Your task to perform on an android device: Show the shopping cart on costco. Image 0: 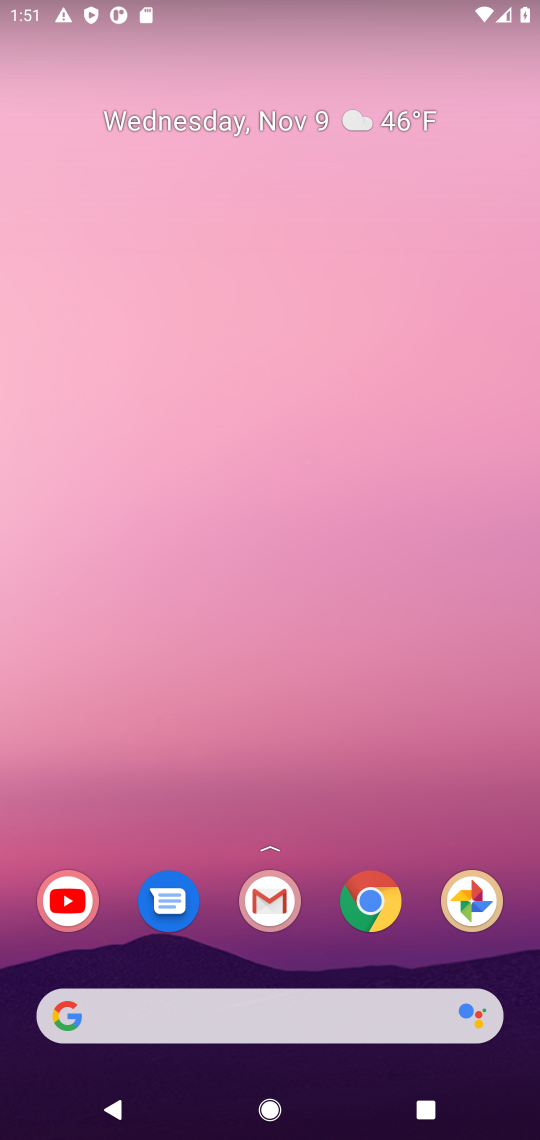
Step 0: click (381, 911)
Your task to perform on an android device: Show the shopping cart on costco. Image 1: 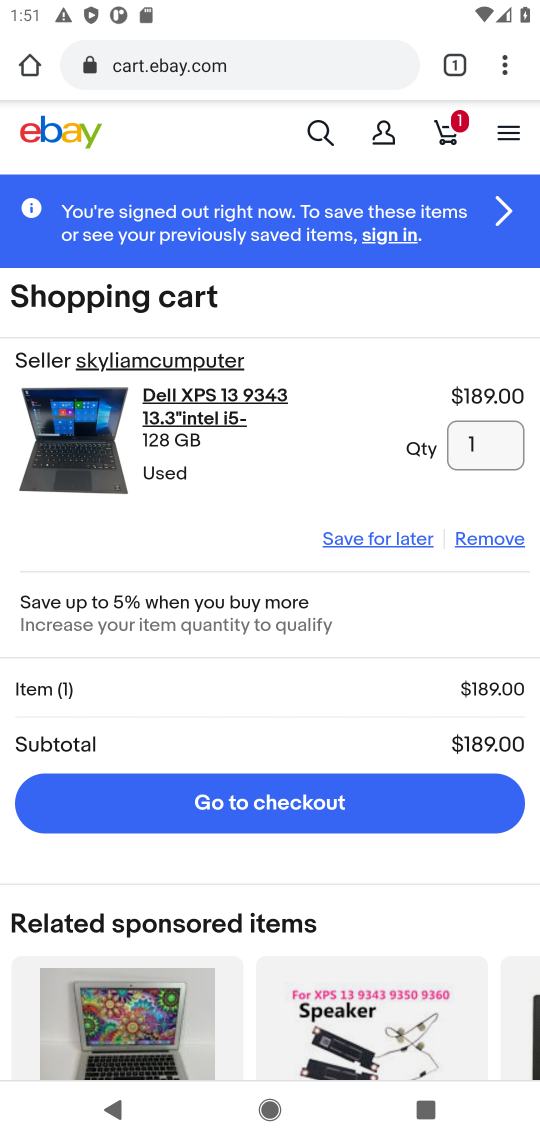
Step 1: click (32, 65)
Your task to perform on an android device: Show the shopping cart on costco. Image 2: 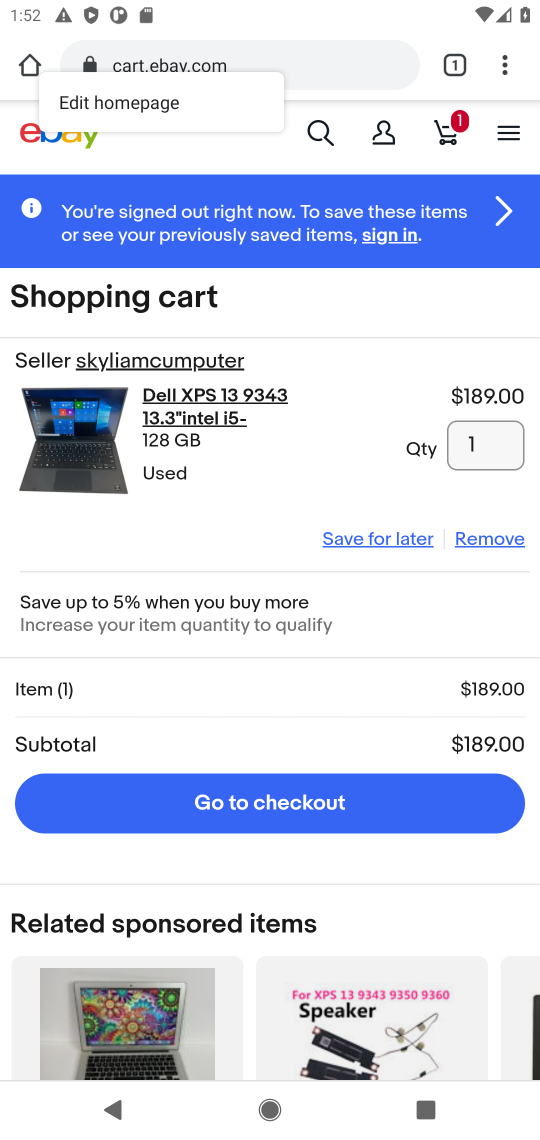
Step 2: click (377, 63)
Your task to perform on an android device: Show the shopping cart on costco. Image 3: 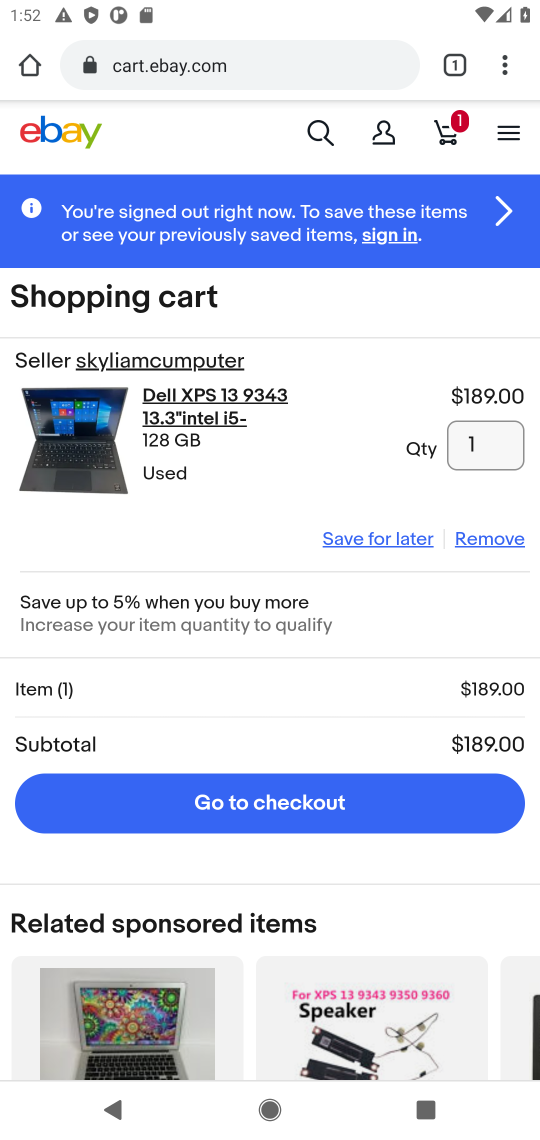
Step 3: click (21, 58)
Your task to perform on an android device: Show the shopping cart on costco. Image 4: 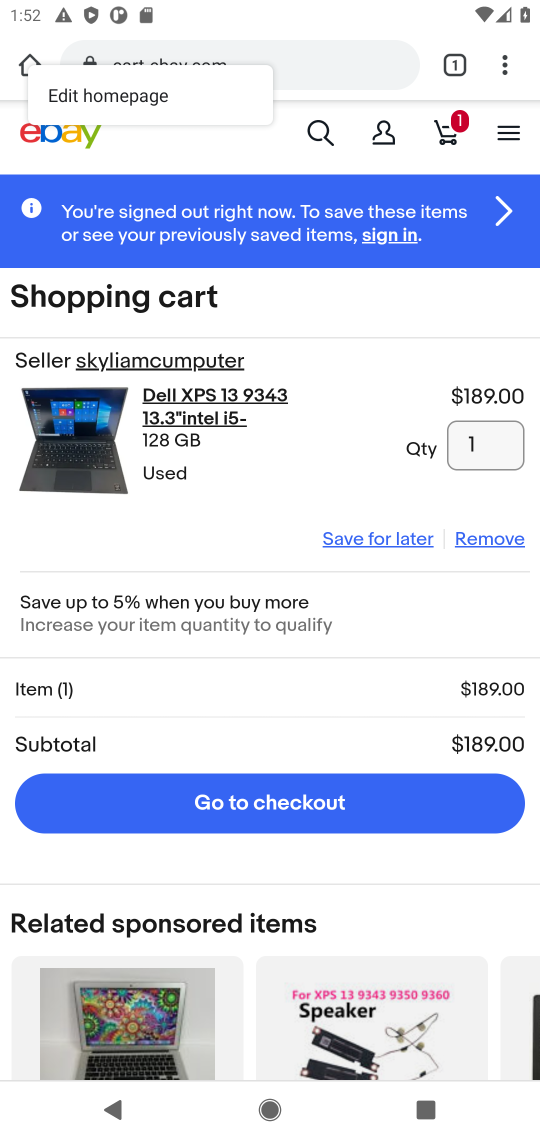
Step 4: click (21, 53)
Your task to perform on an android device: Show the shopping cart on costco. Image 5: 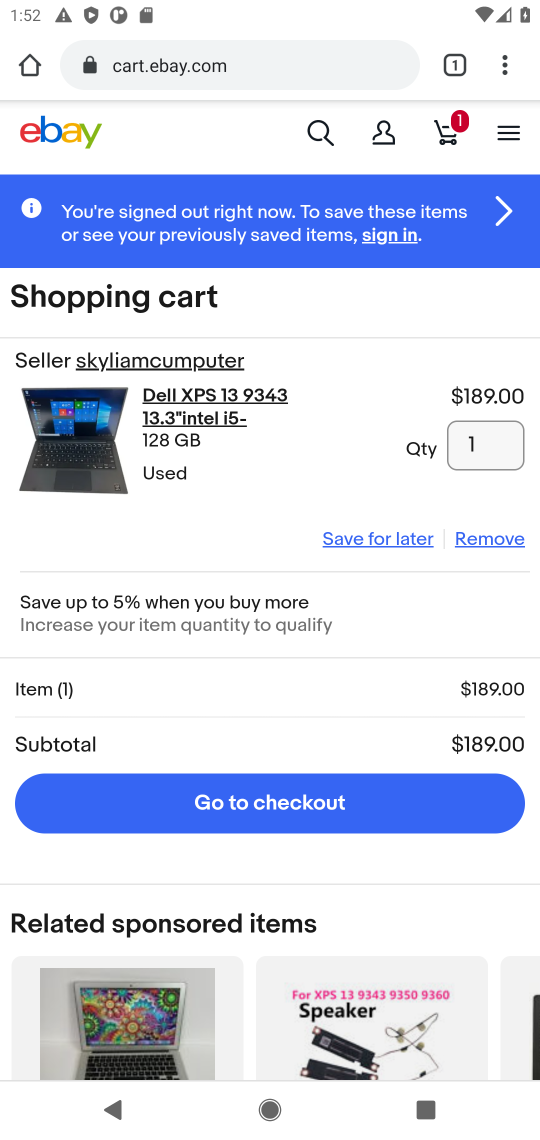
Step 5: click (20, 71)
Your task to perform on an android device: Show the shopping cart on costco. Image 6: 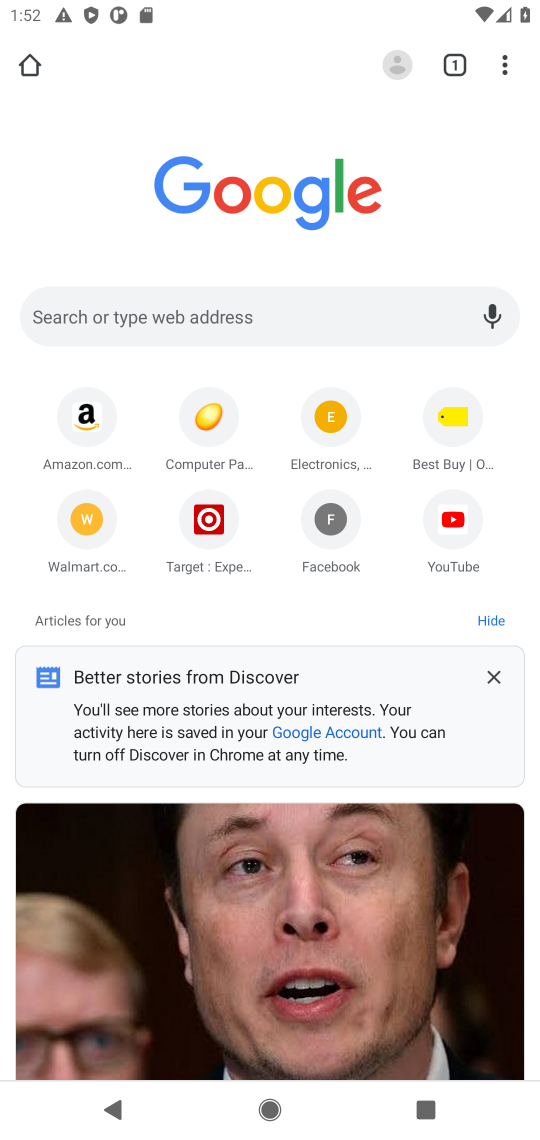
Step 6: click (327, 290)
Your task to perform on an android device: Show the shopping cart on costco. Image 7: 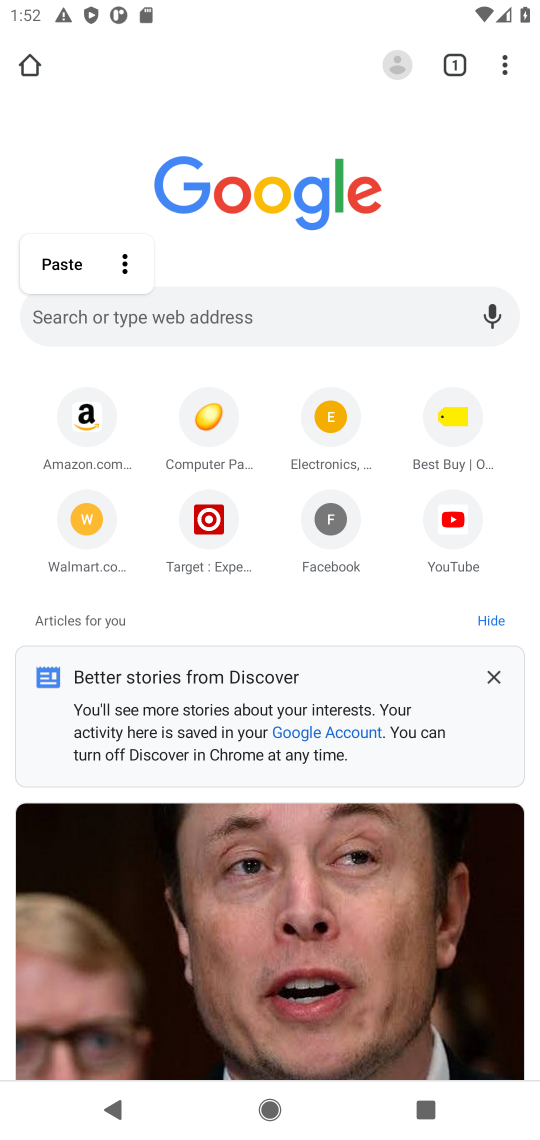
Step 7: press enter
Your task to perform on an android device: Show the shopping cart on costco. Image 8: 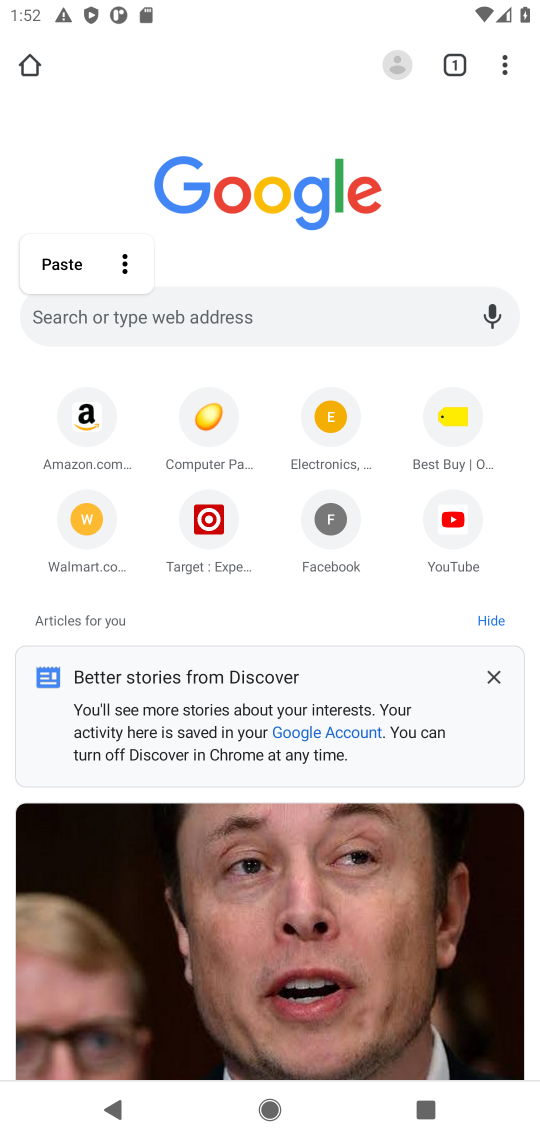
Step 8: type "costco"
Your task to perform on an android device: Show the shopping cart on costco. Image 9: 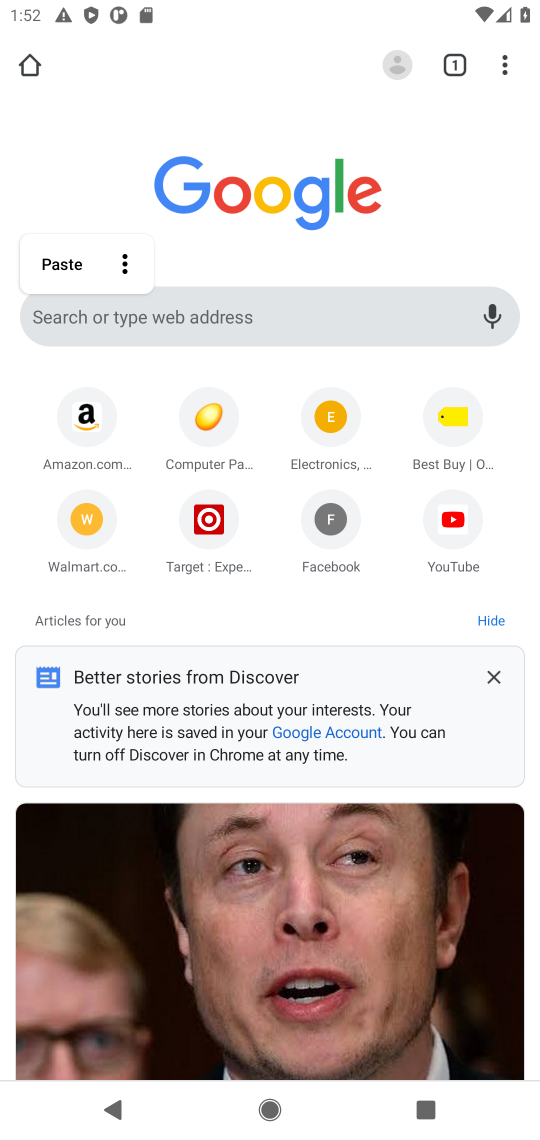
Step 9: click (323, 306)
Your task to perform on an android device: Show the shopping cart on costco. Image 10: 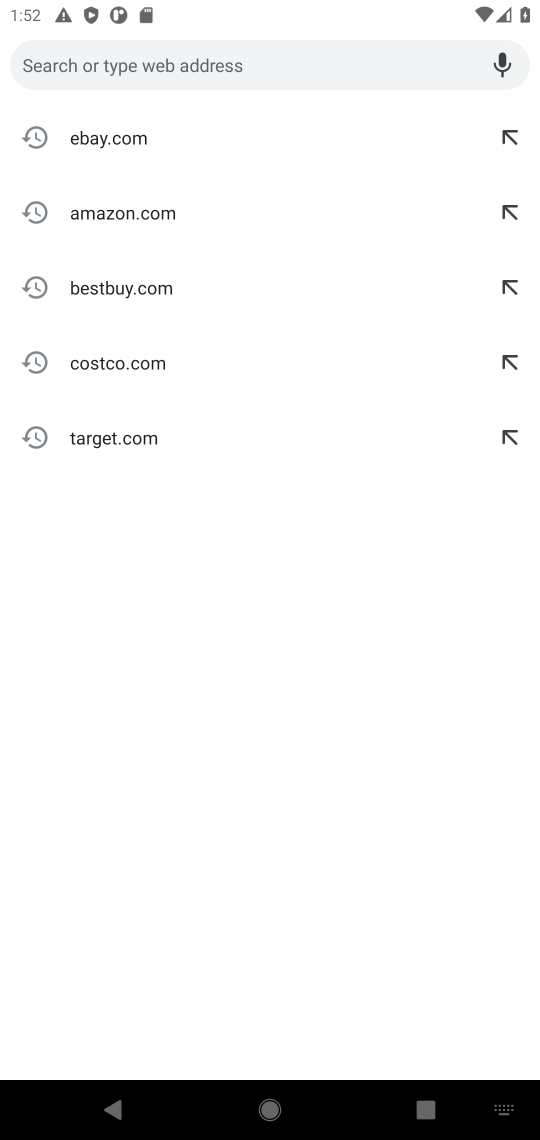
Step 10: click (134, 358)
Your task to perform on an android device: Show the shopping cart on costco. Image 11: 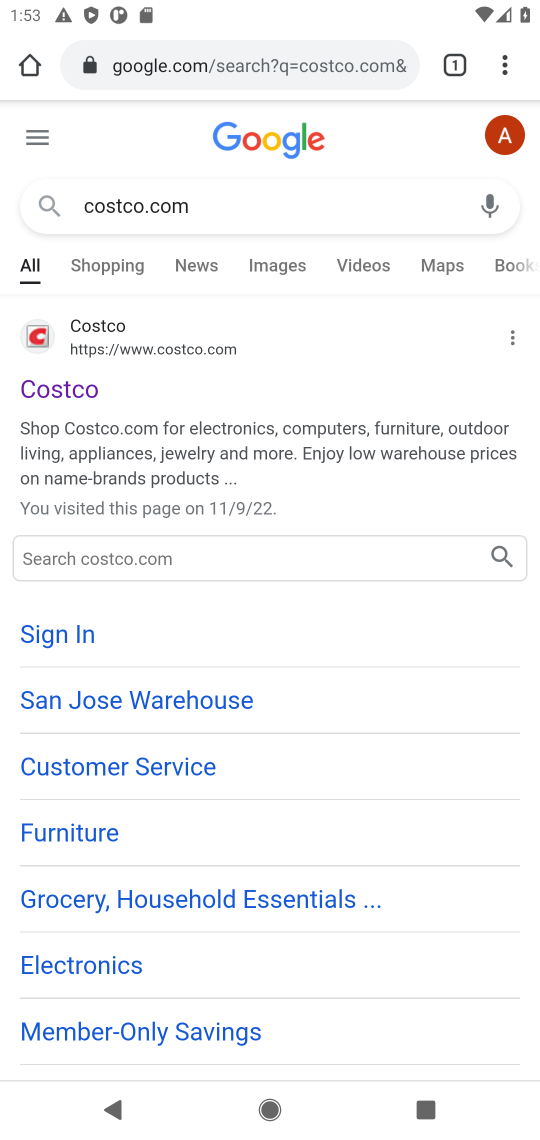
Step 11: click (156, 345)
Your task to perform on an android device: Show the shopping cart on costco. Image 12: 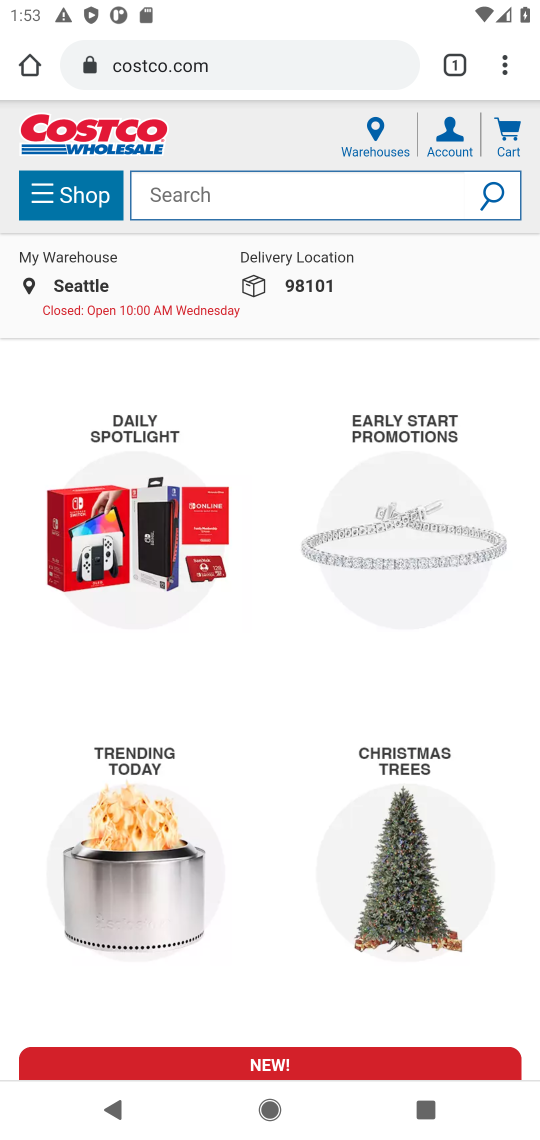
Step 12: click (500, 130)
Your task to perform on an android device: Show the shopping cart on costco. Image 13: 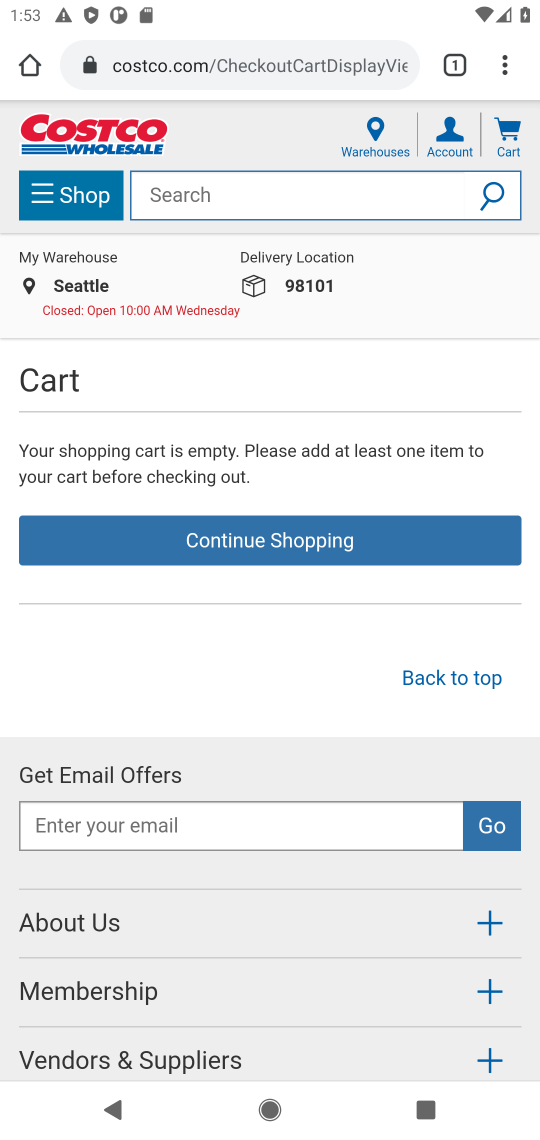
Step 13: task complete